Your task to perform on an android device: turn off sleep mode Image 0: 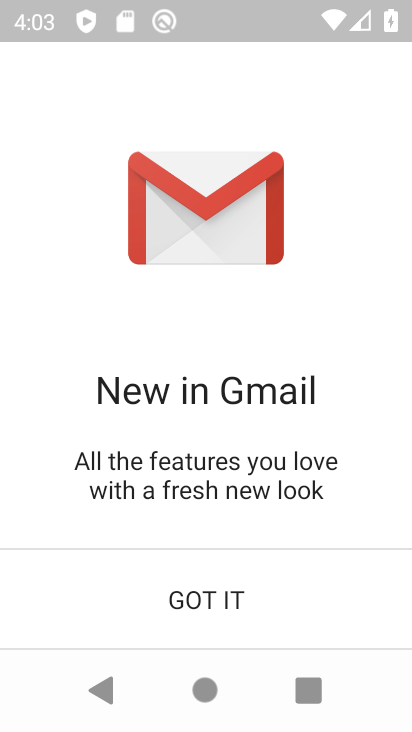
Step 0: press back button
Your task to perform on an android device: turn off sleep mode Image 1: 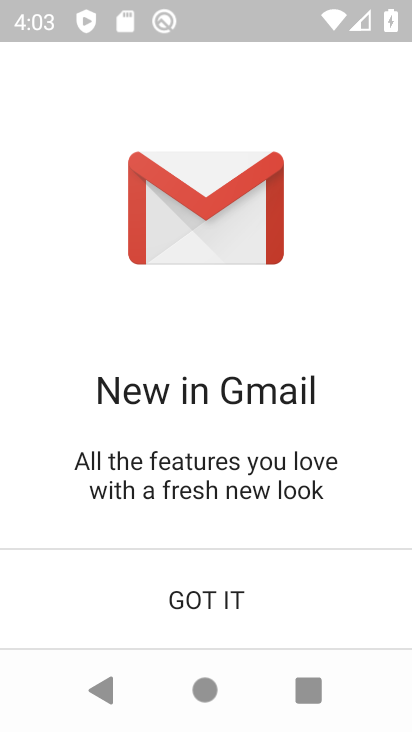
Step 1: press home button
Your task to perform on an android device: turn off sleep mode Image 2: 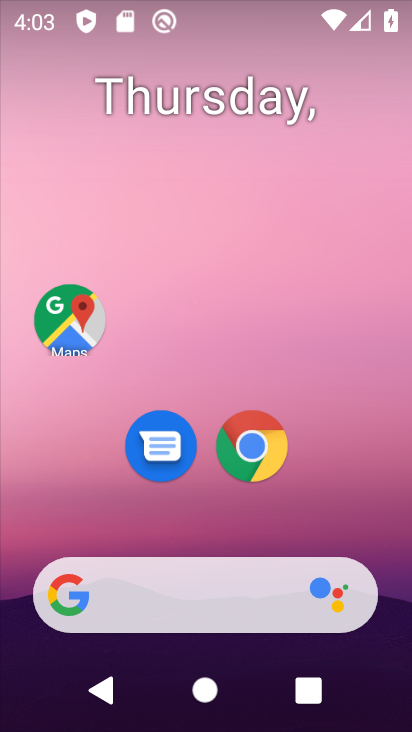
Step 2: drag from (75, 550) to (156, 143)
Your task to perform on an android device: turn off sleep mode Image 3: 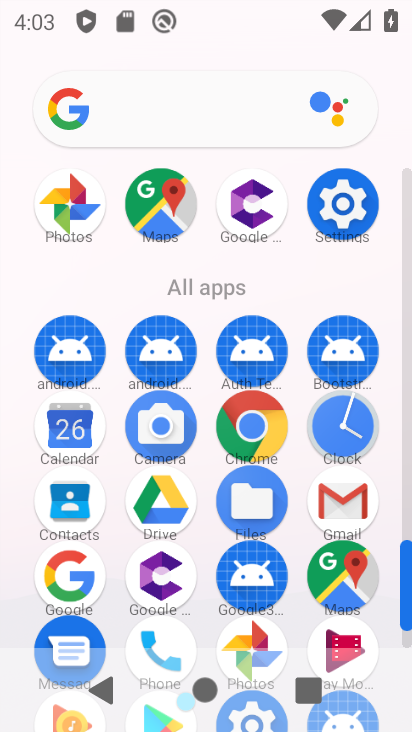
Step 3: drag from (140, 637) to (260, 316)
Your task to perform on an android device: turn off sleep mode Image 4: 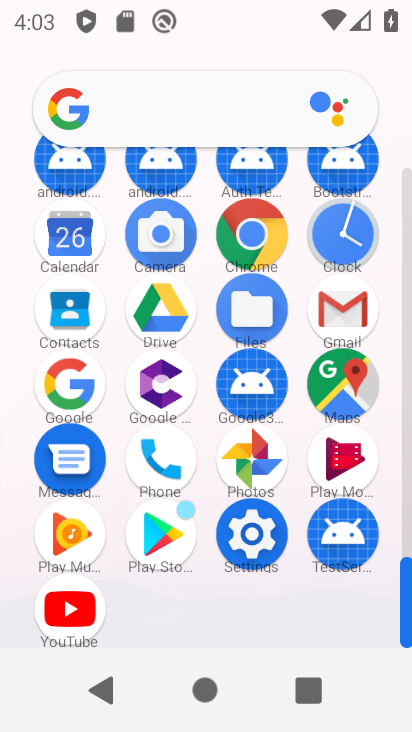
Step 4: click (263, 539)
Your task to perform on an android device: turn off sleep mode Image 5: 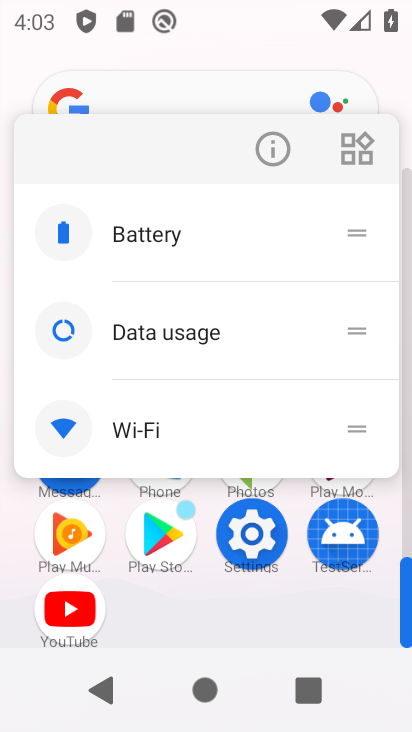
Step 5: click (263, 510)
Your task to perform on an android device: turn off sleep mode Image 6: 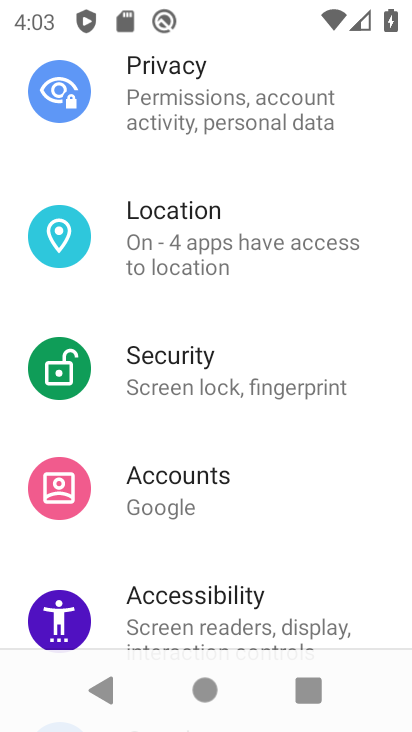
Step 6: drag from (270, 234) to (239, 641)
Your task to perform on an android device: turn off sleep mode Image 7: 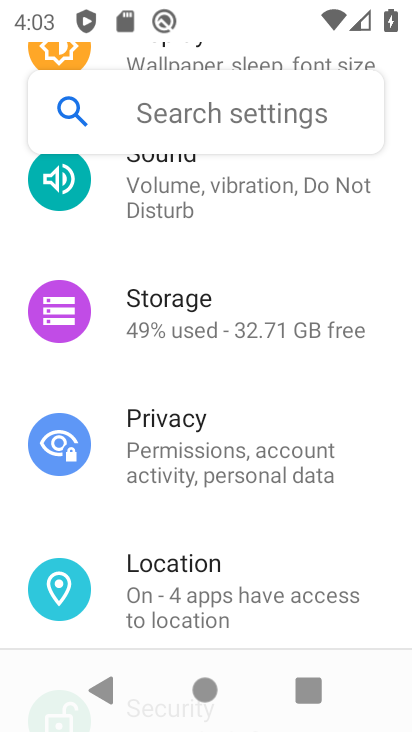
Step 7: drag from (244, 284) to (233, 595)
Your task to perform on an android device: turn off sleep mode Image 8: 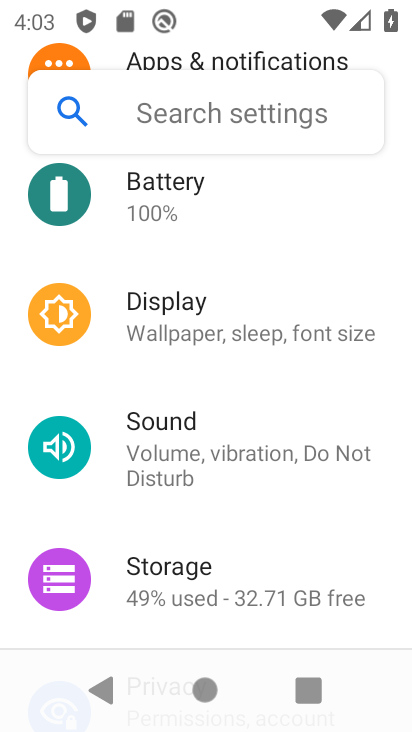
Step 8: click (252, 319)
Your task to perform on an android device: turn off sleep mode Image 9: 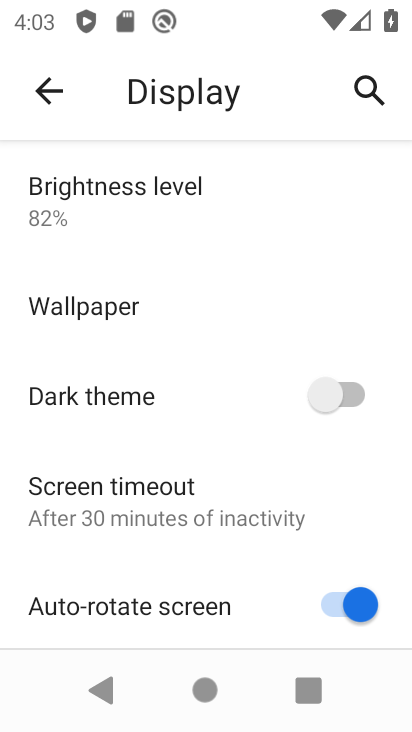
Step 9: drag from (172, 518) to (293, 155)
Your task to perform on an android device: turn off sleep mode Image 10: 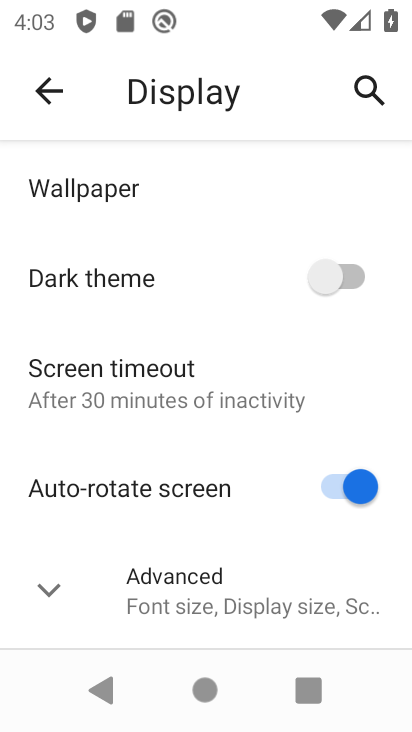
Step 10: click (231, 580)
Your task to perform on an android device: turn off sleep mode Image 11: 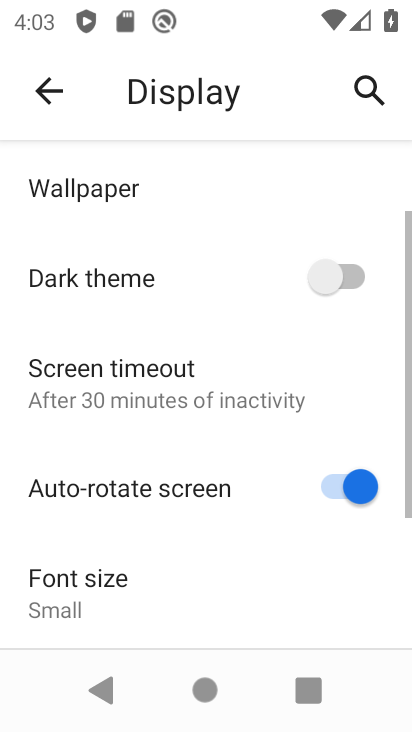
Step 11: task complete